Your task to perform on an android device: Open internet settings Image 0: 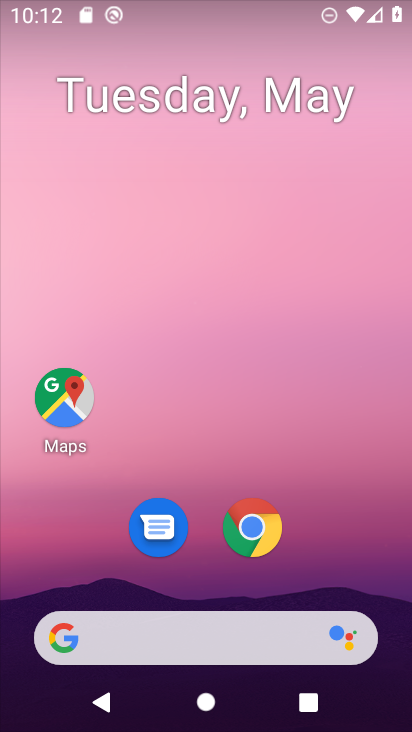
Step 0: drag from (325, 544) to (272, 275)
Your task to perform on an android device: Open internet settings Image 1: 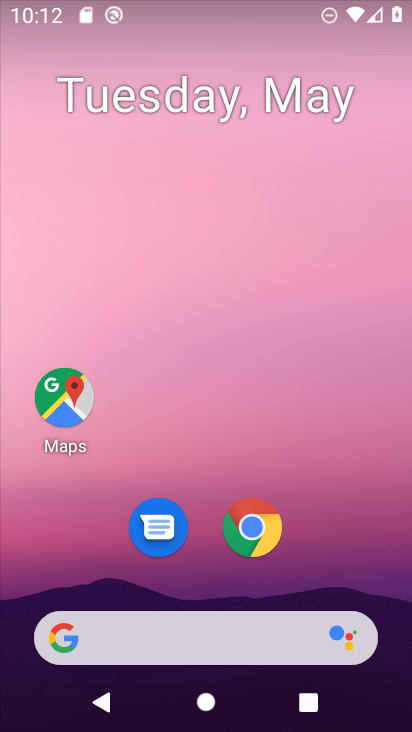
Step 1: drag from (347, 547) to (197, 12)
Your task to perform on an android device: Open internet settings Image 2: 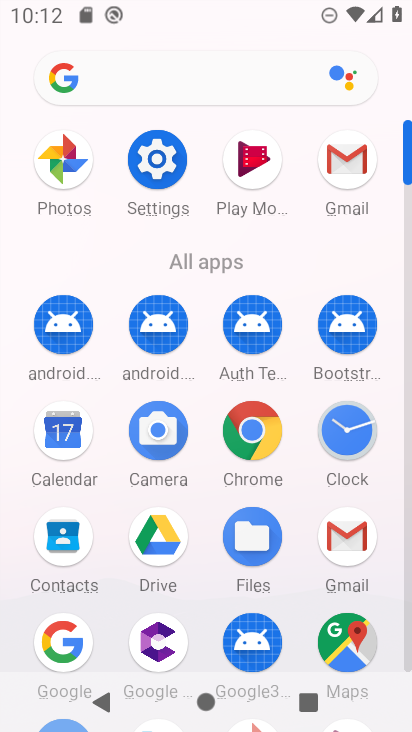
Step 2: click (157, 160)
Your task to perform on an android device: Open internet settings Image 3: 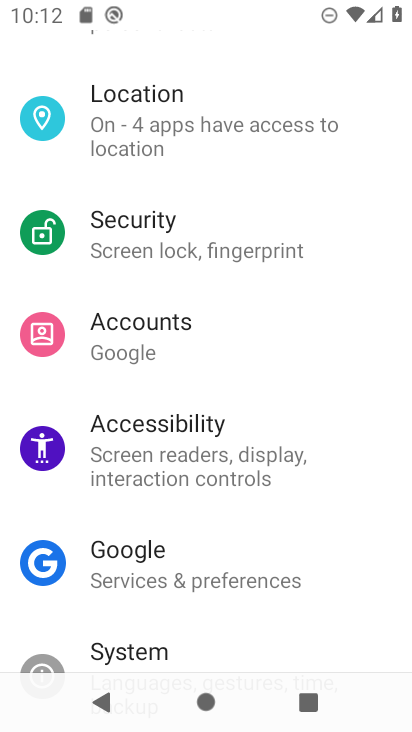
Step 3: drag from (227, 177) to (229, 278)
Your task to perform on an android device: Open internet settings Image 4: 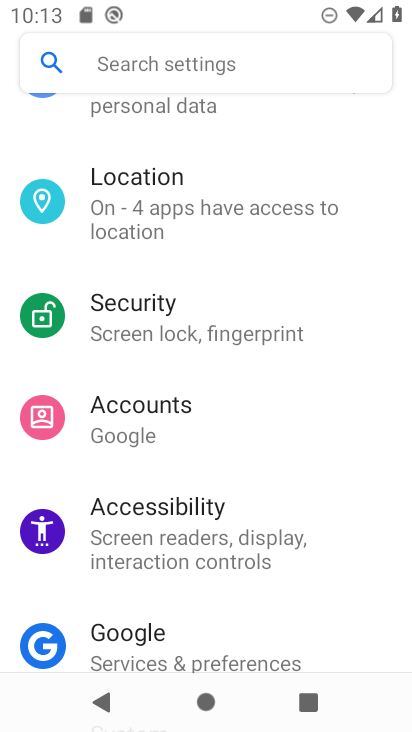
Step 4: drag from (249, 173) to (248, 311)
Your task to perform on an android device: Open internet settings Image 5: 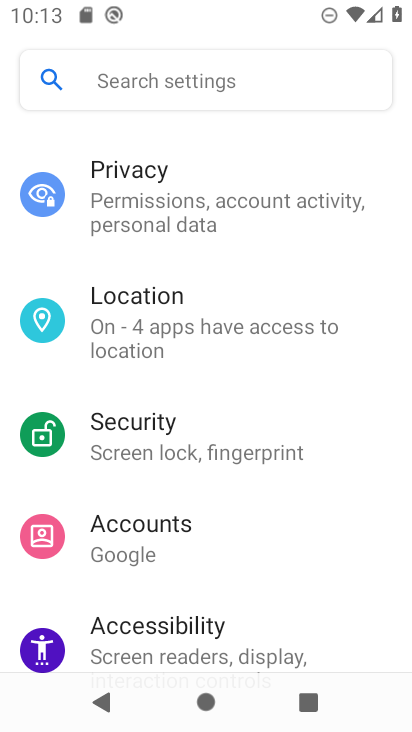
Step 5: drag from (260, 239) to (247, 352)
Your task to perform on an android device: Open internet settings Image 6: 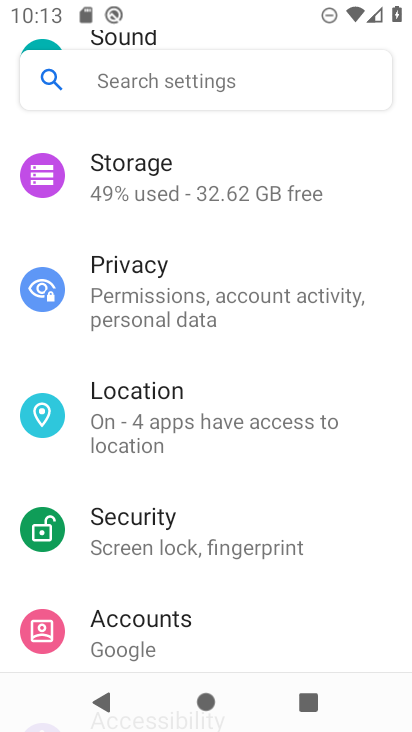
Step 6: drag from (211, 249) to (244, 346)
Your task to perform on an android device: Open internet settings Image 7: 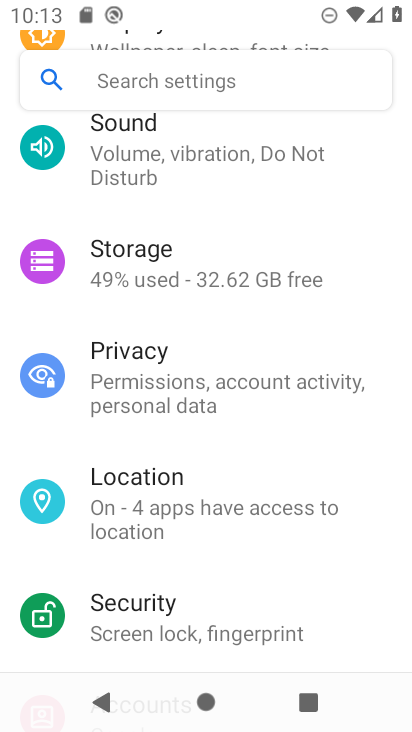
Step 7: drag from (233, 221) to (265, 338)
Your task to perform on an android device: Open internet settings Image 8: 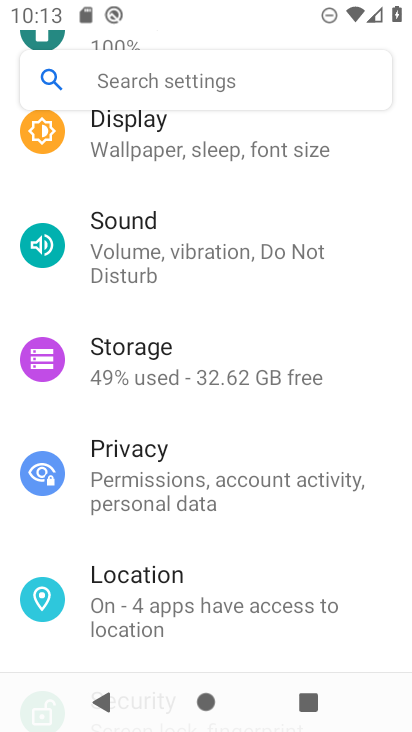
Step 8: drag from (264, 213) to (276, 364)
Your task to perform on an android device: Open internet settings Image 9: 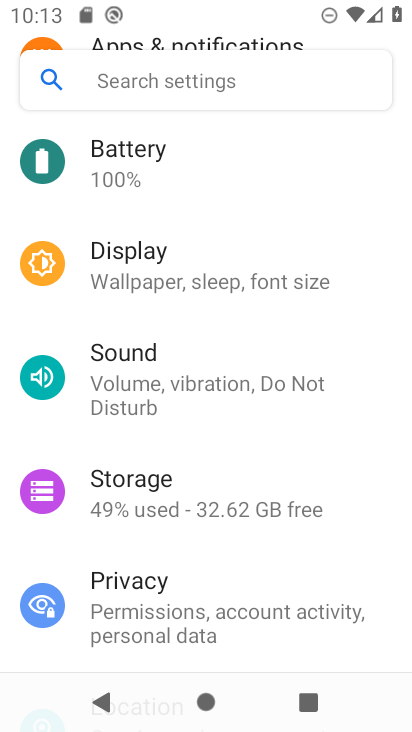
Step 9: drag from (243, 226) to (240, 349)
Your task to perform on an android device: Open internet settings Image 10: 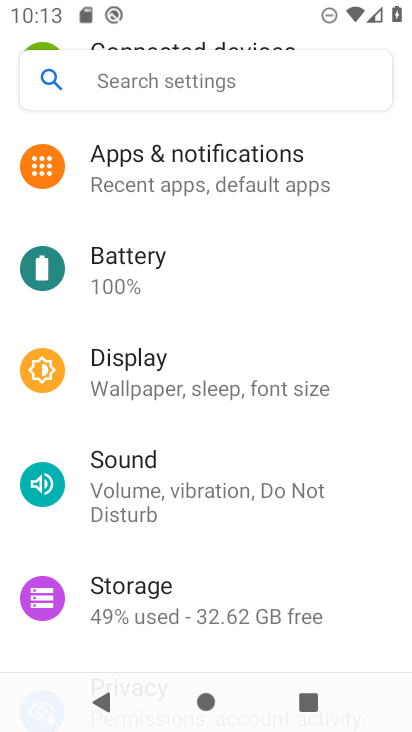
Step 10: drag from (228, 237) to (231, 337)
Your task to perform on an android device: Open internet settings Image 11: 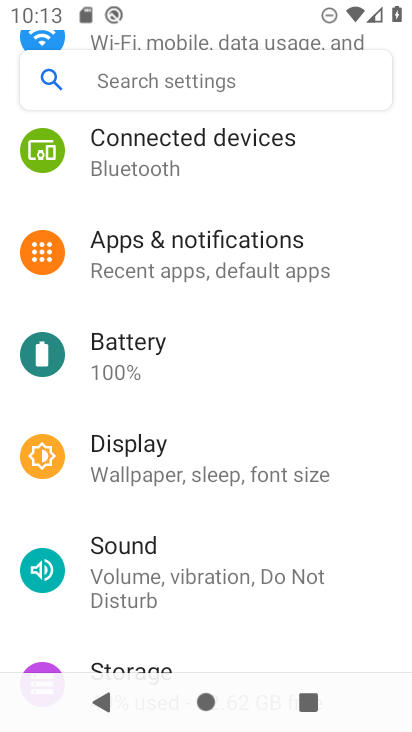
Step 11: drag from (240, 196) to (258, 300)
Your task to perform on an android device: Open internet settings Image 12: 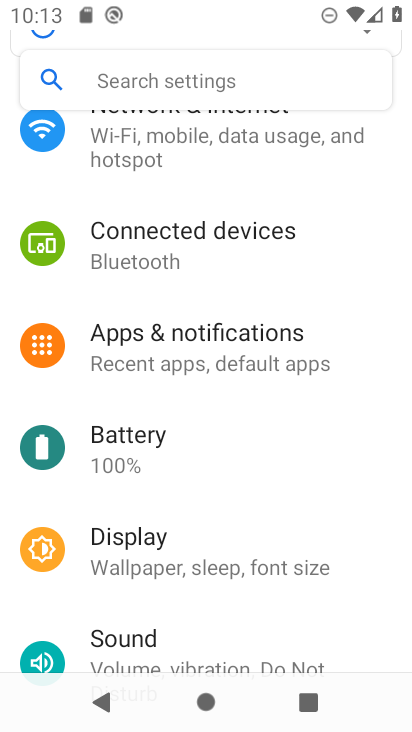
Step 12: drag from (243, 182) to (243, 320)
Your task to perform on an android device: Open internet settings Image 13: 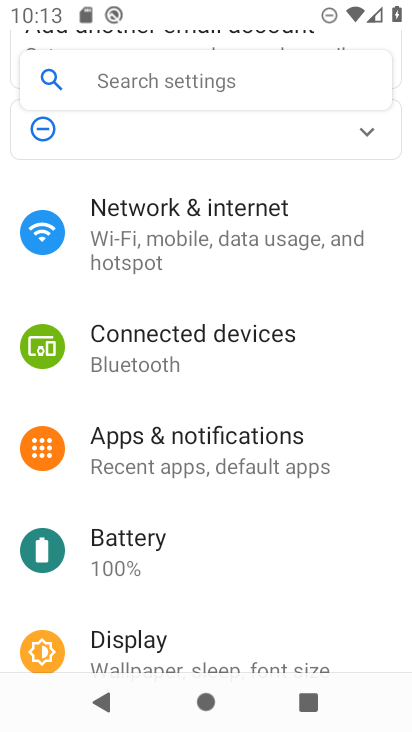
Step 13: click (185, 215)
Your task to perform on an android device: Open internet settings Image 14: 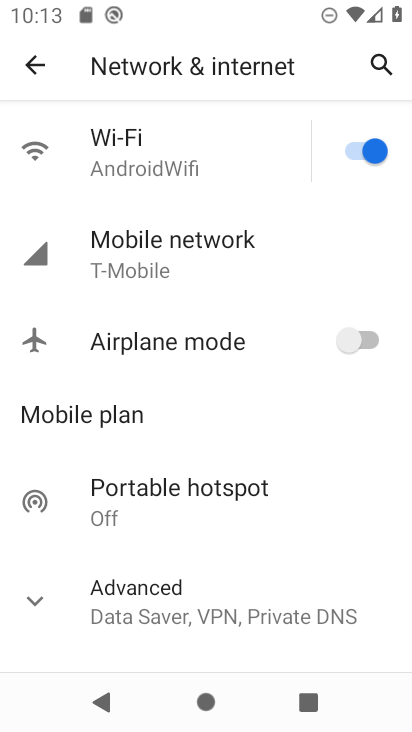
Step 14: click (143, 170)
Your task to perform on an android device: Open internet settings Image 15: 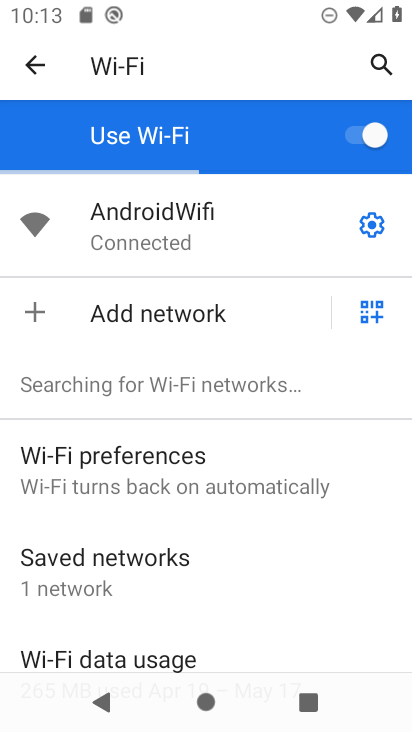
Step 15: task complete